Your task to perform on an android device: Add "razer kraken" to the cart on ebay.com, then select checkout. Image 0: 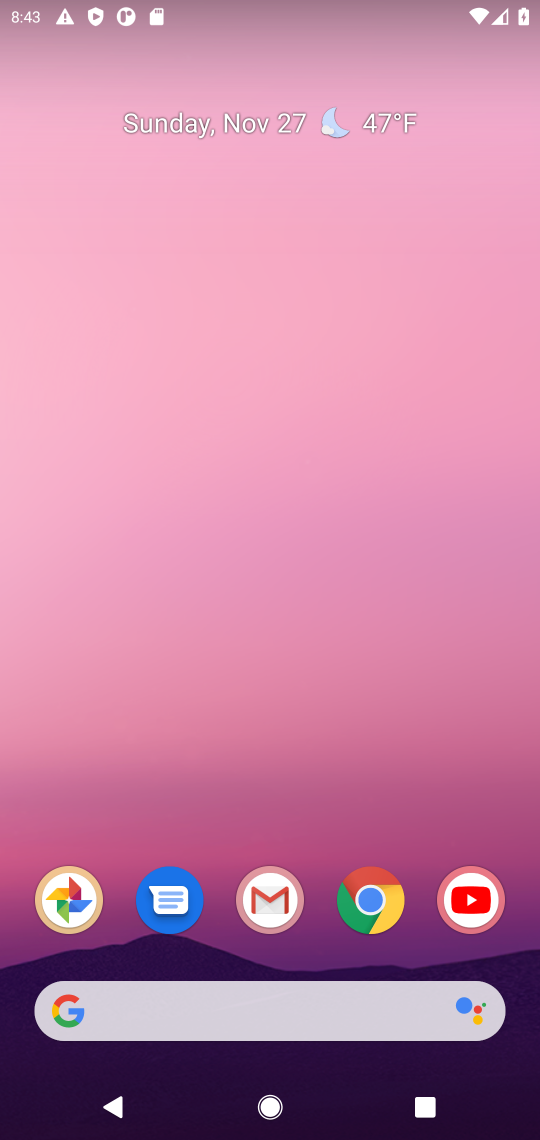
Step 0: click (408, 956)
Your task to perform on an android device: Add "razer kraken" to the cart on ebay.com, then select checkout. Image 1: 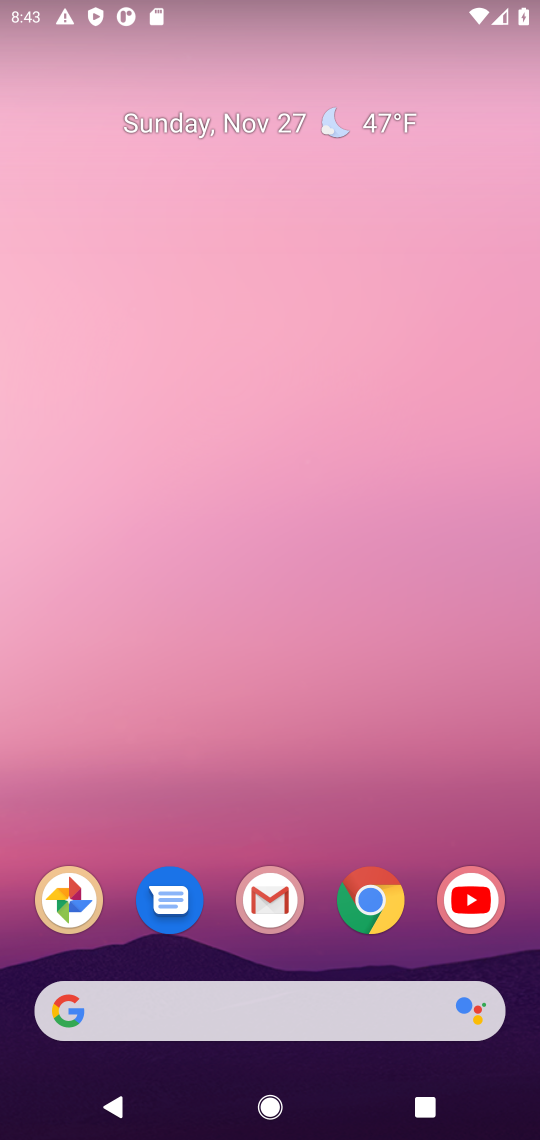
Step 1: click (376, 905)
Your task to perform on an android device: Add "razer kraken" to the cart on ebay.com, then select checkout. Image 2: 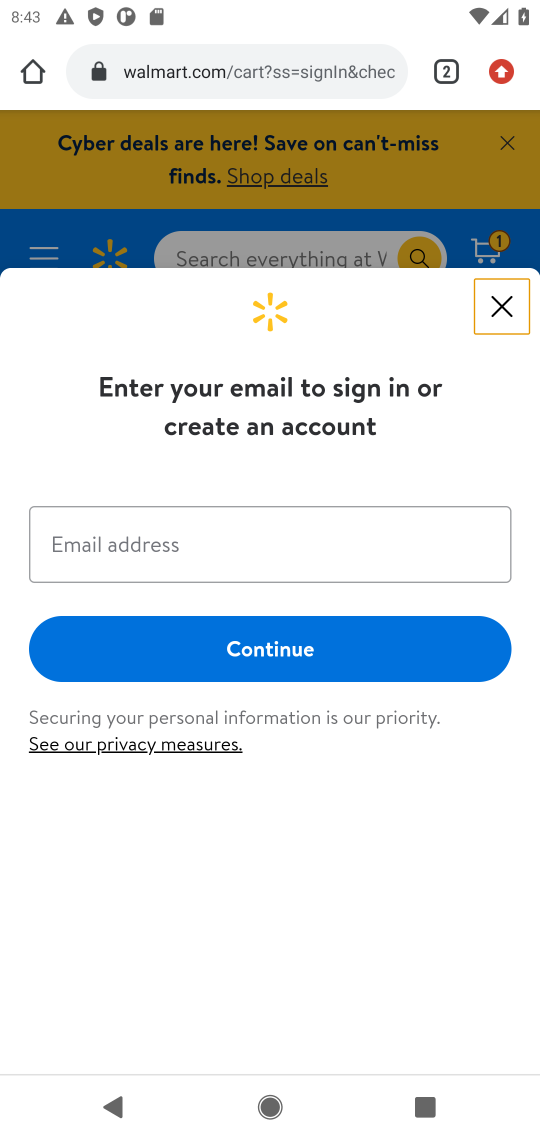
Step 2: click (195, 70)
Your task to perform on an android device: Add "razer kraken" to the cart on ebay.com, then select checkout. Image 3: 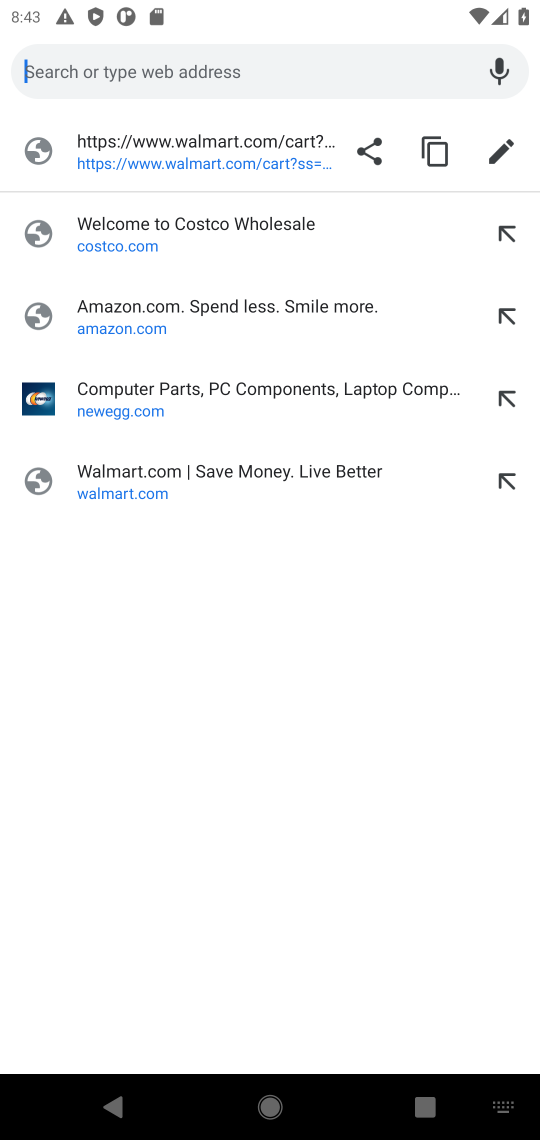
Step 3: type "ebay.com"
Your task to perform on an android device: Add "razer kraken" to the cart on ebay.com, then select checkout. Image 4: 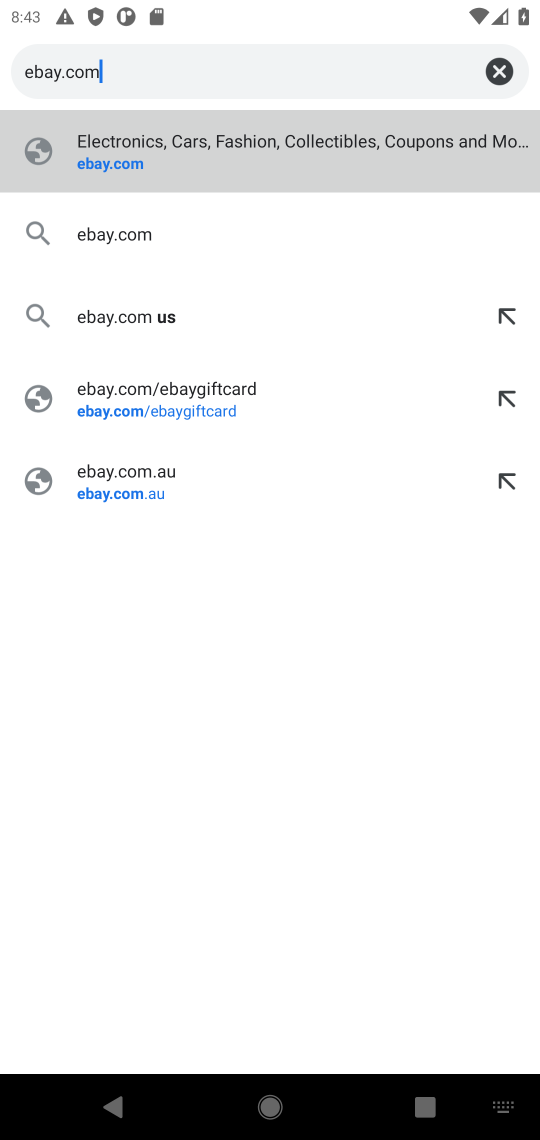
Step 4: click (121, 164)
Your task to perform on an android device: Add "razer kraken" to the cart on ebay.com, then select checkout. Image 5: 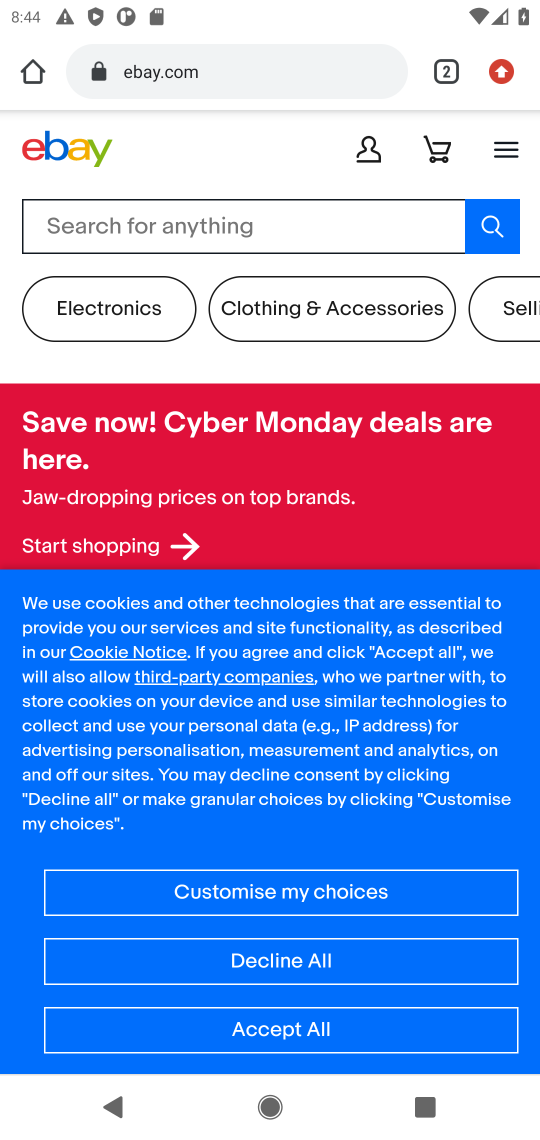
Step 5: click (120, 227)
Your task to perform on an android device: Add "razer kraken" to the cart on ebay.com, then select checkout. Image 6: 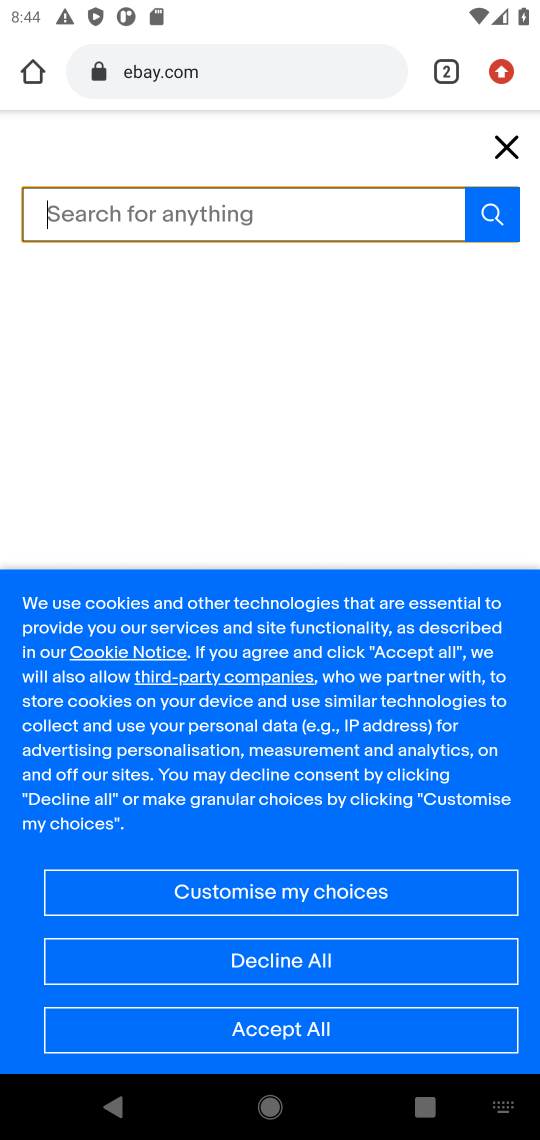
Step 6: type "razer kraken"
Your task to perform on an android device: Add "razer kraken" to the cart on ebay.com, then select checkout. Image 7: 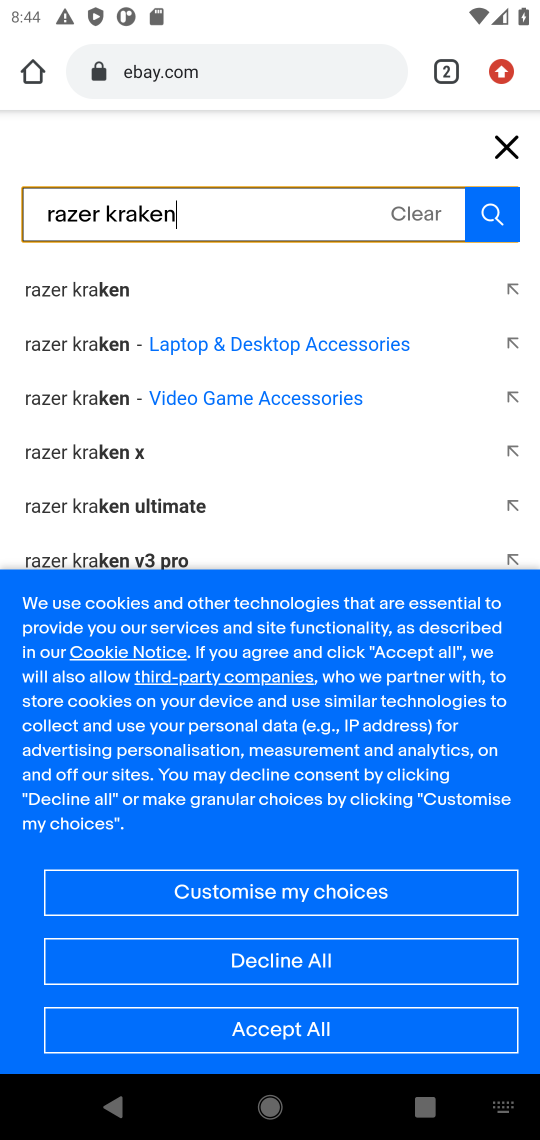
Step 7: click (54, 284)
Your task to perform on an android device: Add "razer kraken" to the cart on ebay.com, then select checkout. Image 8: 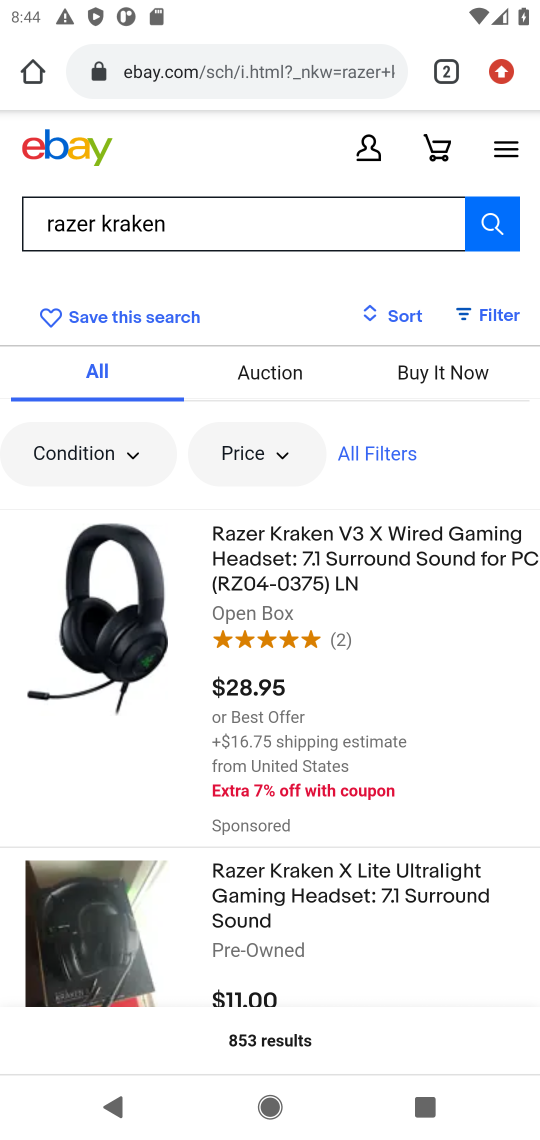
Step 8: click (115, 633)
Your task to perform on an android device: Add "razer kraken" to the cart on ebay.com, then select checkout. Image 9: 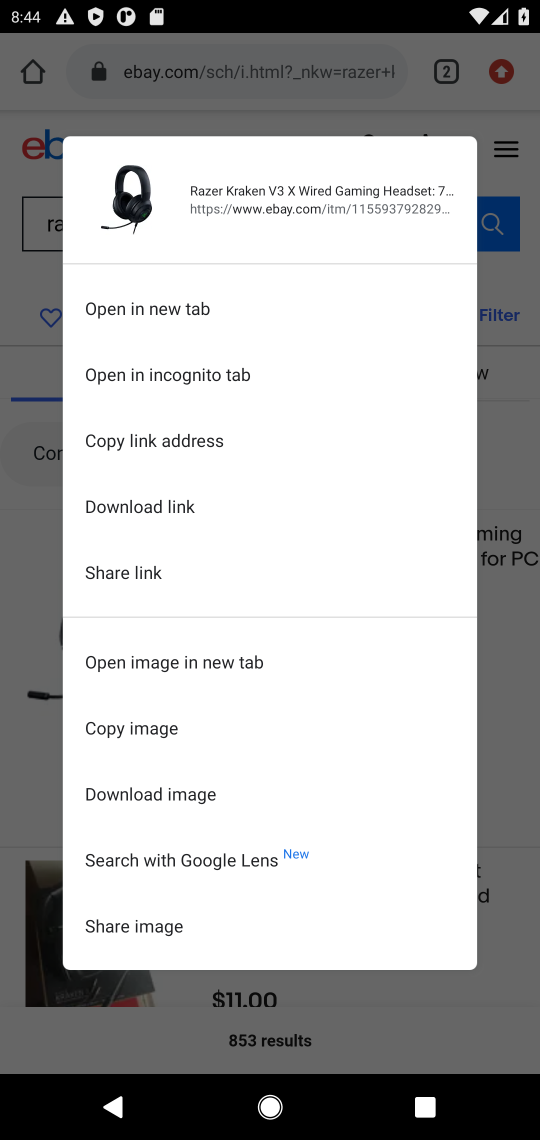
Step 9: click (35, 553)
Your task to perform on an android device: Add "razer kraken" to the cart on ebay.com, then select checkout. Image 10: 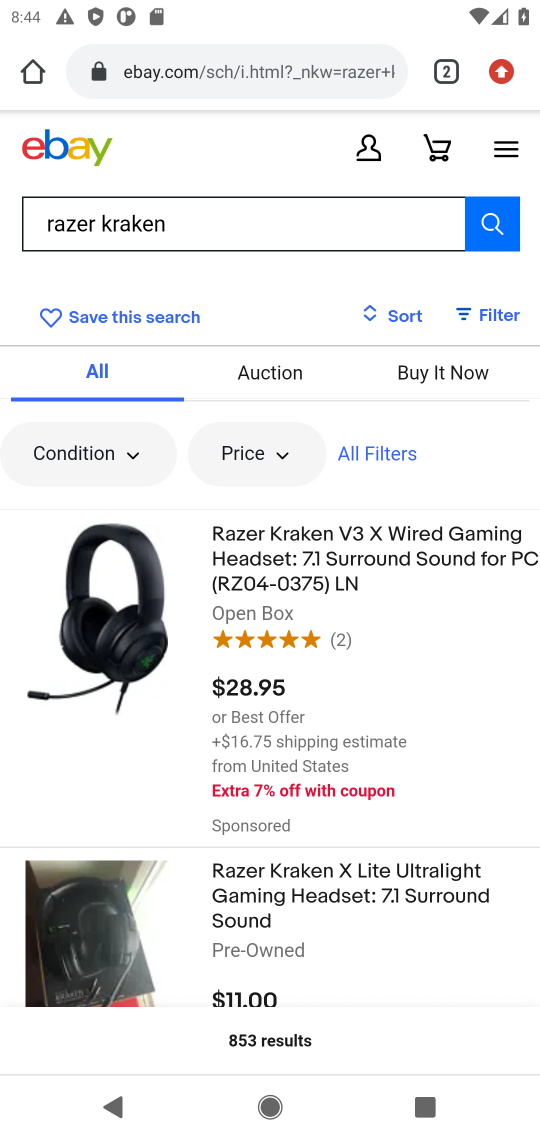
Step 10: click (237, 563)
Your task to perform on an android device: Add "razer kraken" to the cart on ebay.com, then select checkout. Image 11: 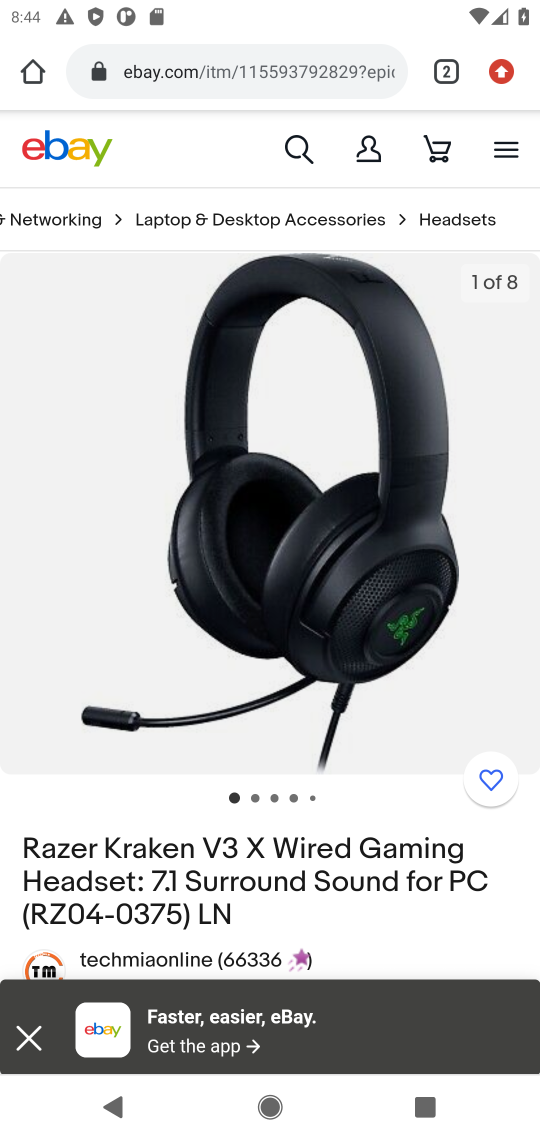
Step 11: drag from (308, 829) to (291, 291)
Your task to perform on an android device: Add "razer kraken" to the cart on ebay.com, then select checkout. Image 12: 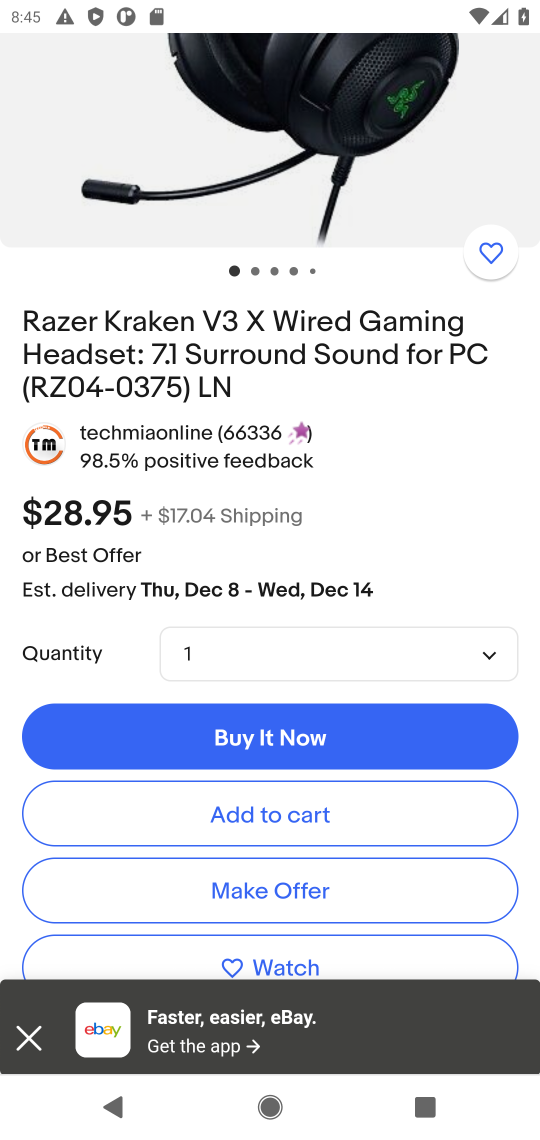
Step 12: click (250, 813)
Your task to perform on an android device: Add "razer kraken" to the cart on ebay.com, then select checkout. Image 13: 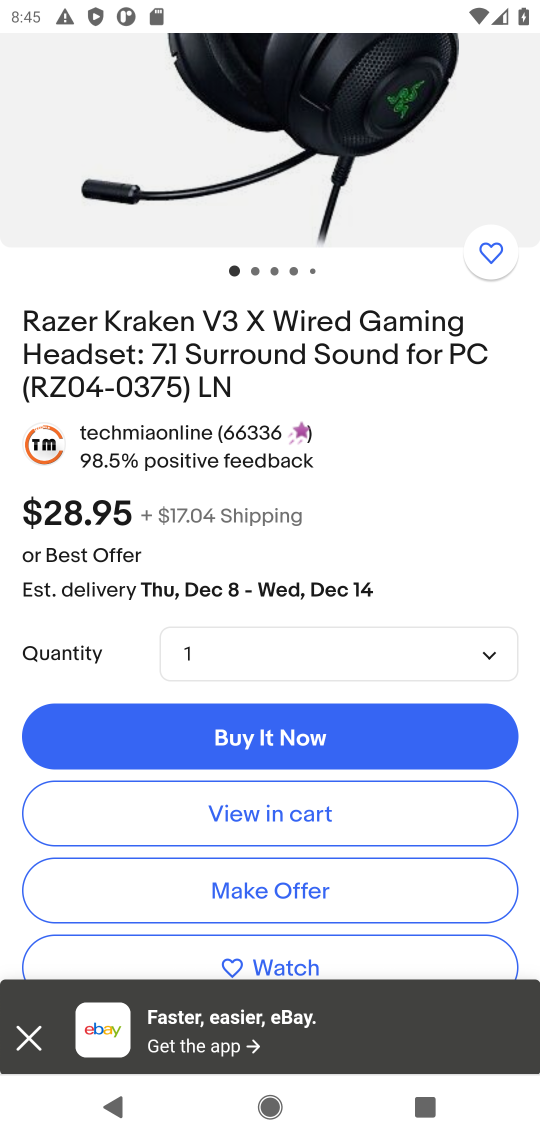
Step 13: click (250, 815)
Your task to perform on an android device: Add "razer kraken" to the cart on ebay.com, then select checkout. Image 14: 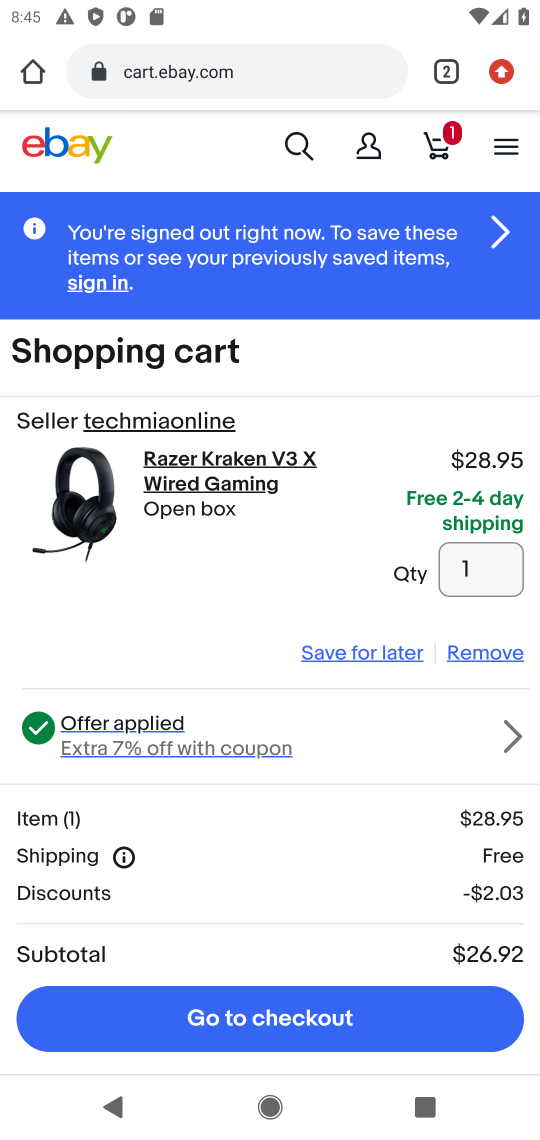
Step 14: click (280, 1006)
Your task to perform on an android device: Add "razer kraken" to the cart on ebay.com, then select checkout. Image 15: 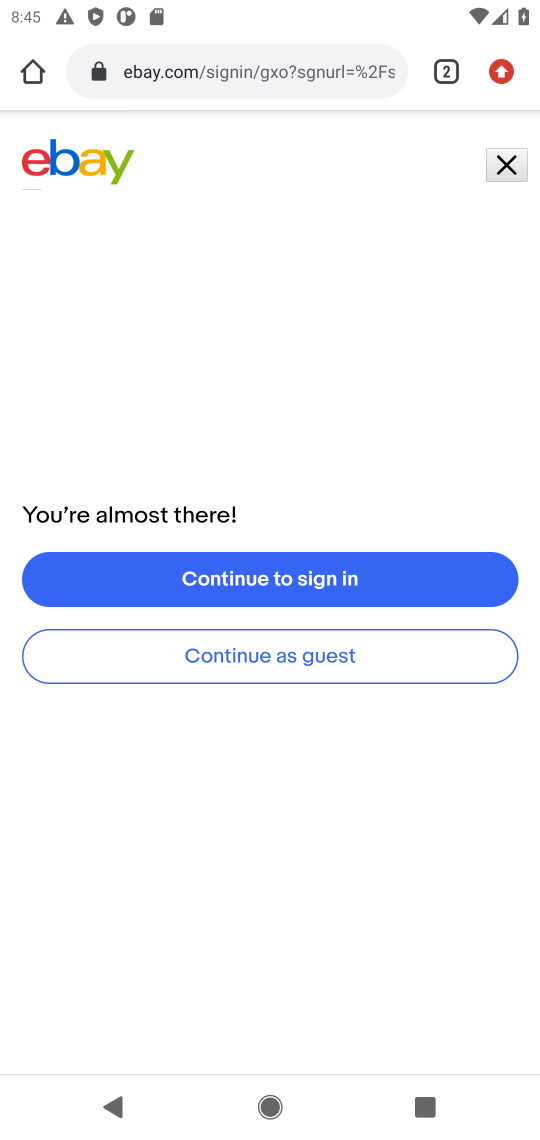
Step 15: task complete